Your task to perform on an android device: Turn off the flashlight Image 0: 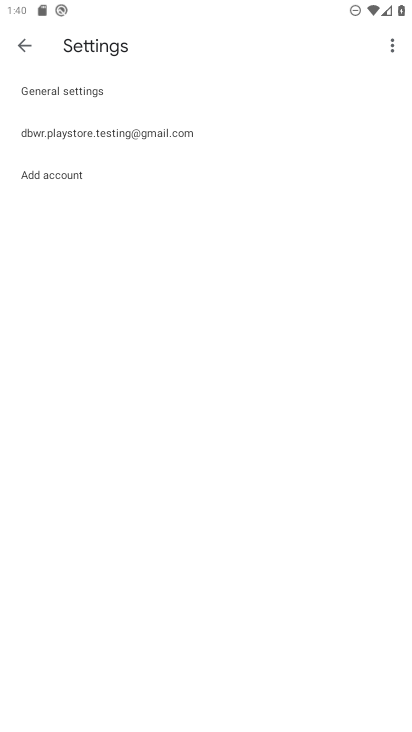
Step 0: press home button
Your task to perform on an android device: Turn off the flashlight Image 1: 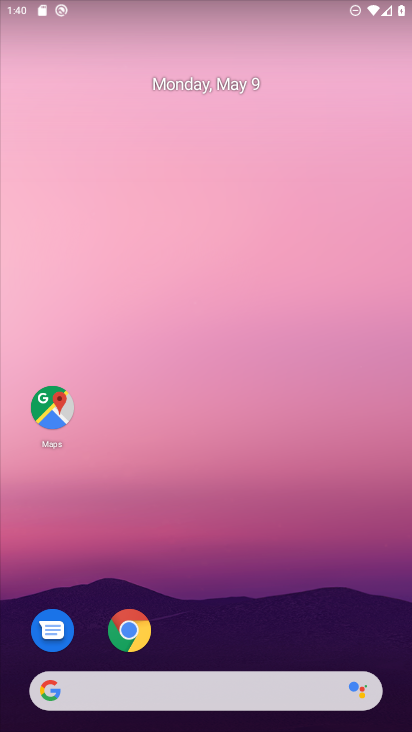
Step 1: drag from (274, 703) to (195, 351)
Your task to perform on an android device: Turn off the flashlight Image 2: 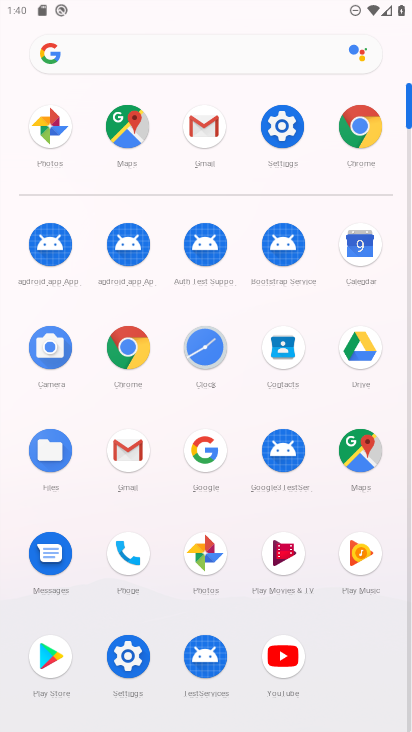
Step 2: click (277, 139)
Your task to perform on an android device: Turn off the flashlight Image 3: 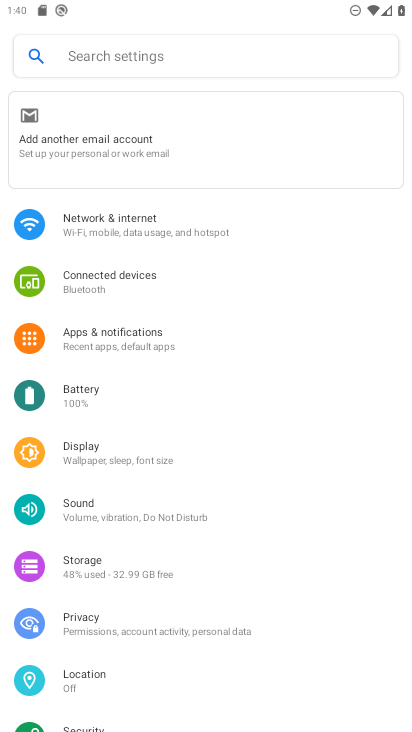
Step 3: click (155, 65)
Your task to perform on an android device: Turn off the flashlight Image 4: 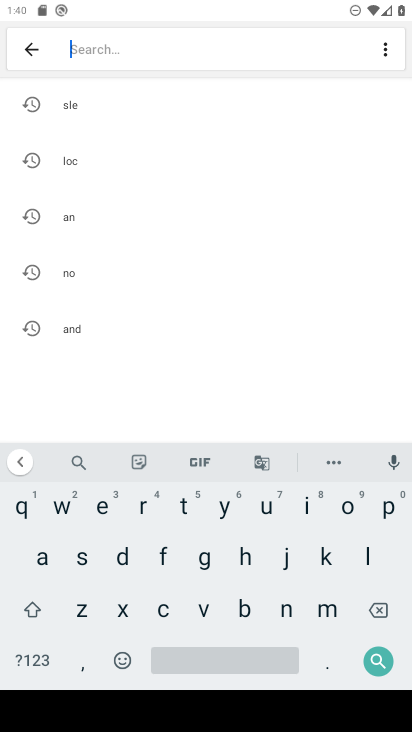
Step 4: click (164, 554)
Your task to perform on an android device: Turn off the flashlight Image 5: 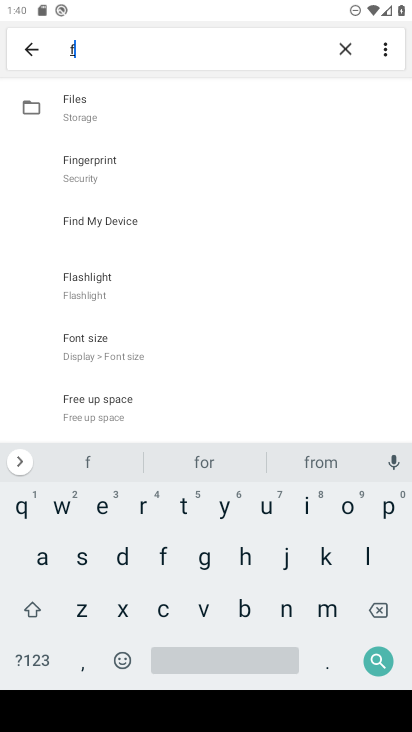
Step 5: click (368, 549)
Your task to perform on an android device: Turn off the flashlight Image 6: 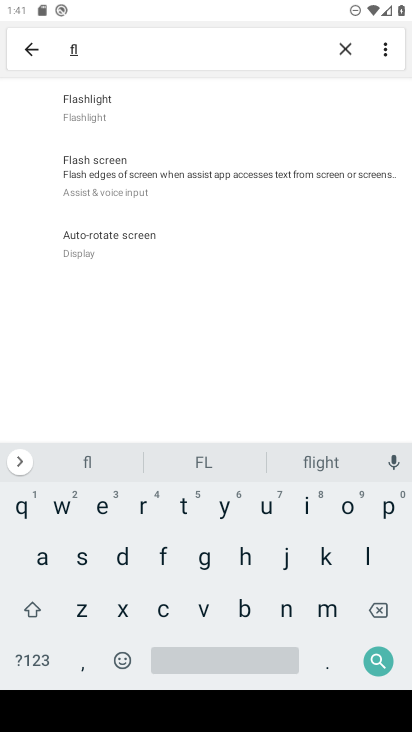
Step 6: click (143, 122)
Your task to perform on an android device: Turn off the flashlight Image 7: 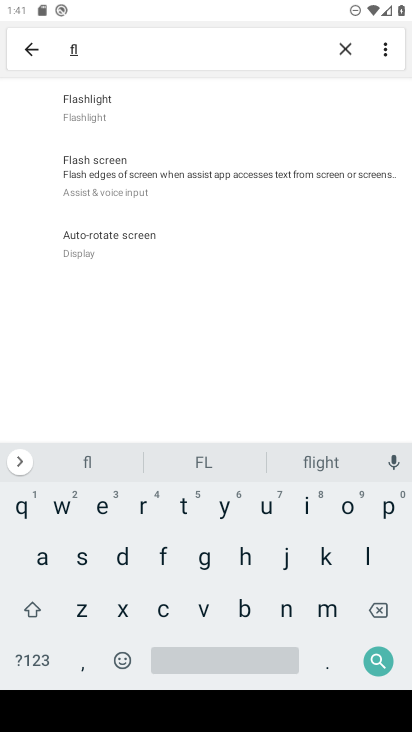
Step 7: click (98, 126)
Your task to perform on an android device: Turn off the flashlight Image 8: 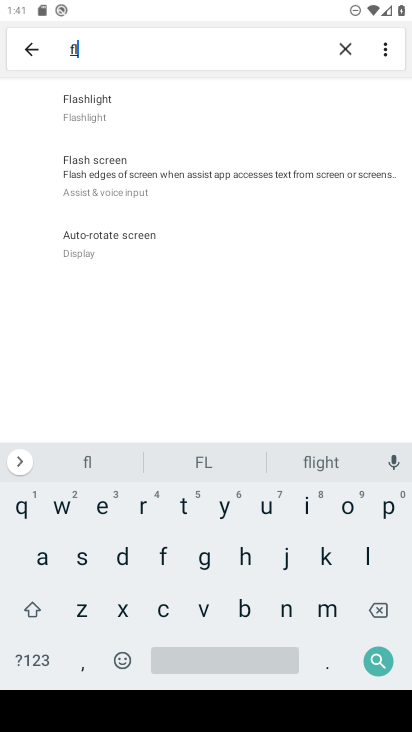
Step 8: task complete